Your task to perform on an android device: change timer sound Image 0: 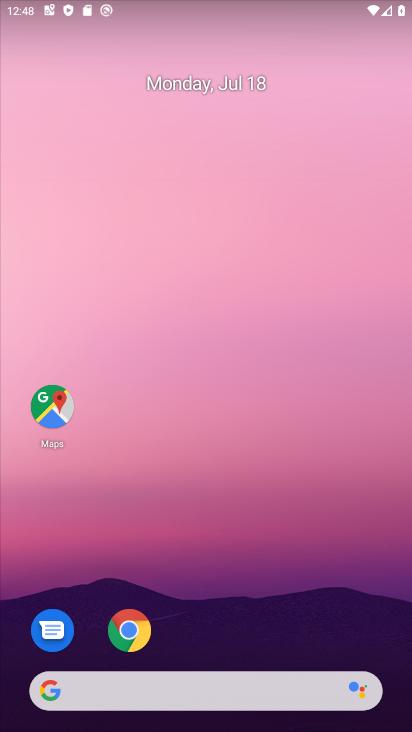
Step 0: drag from (355, 627) to (277, 79)
Your task to perform on an android device: change timer sound Image 1: 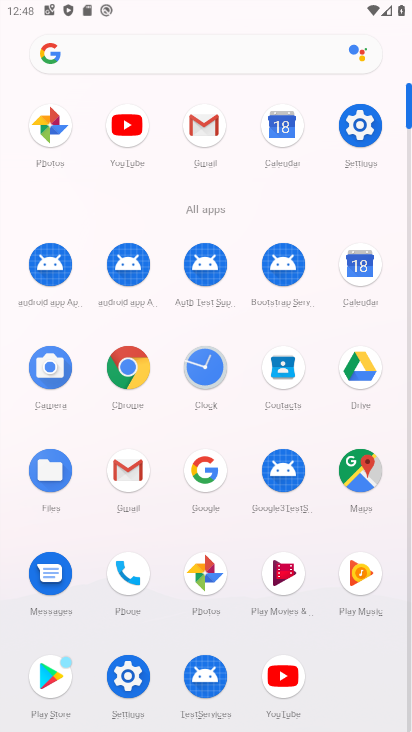
Step 1: click (209, 380)
Your task to perform on an android device: change timer sound Image 2: 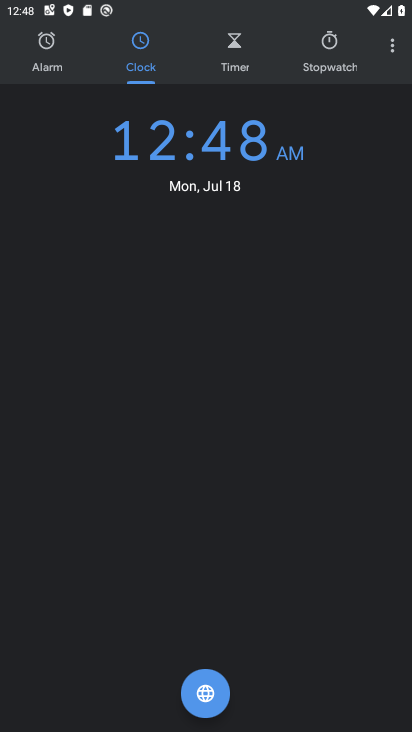
Step 2: click (392, 52)
Your task to perform on an android device: change timer sound Image 3: 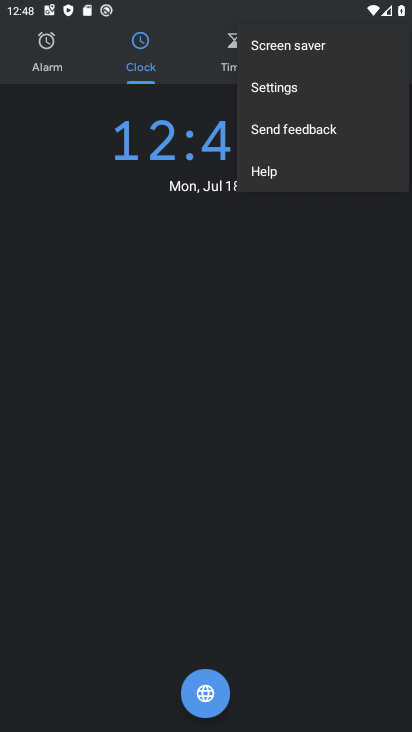
Step 3: click (337, 87)
Your task to perform on an android device: change timer sound Image 4: 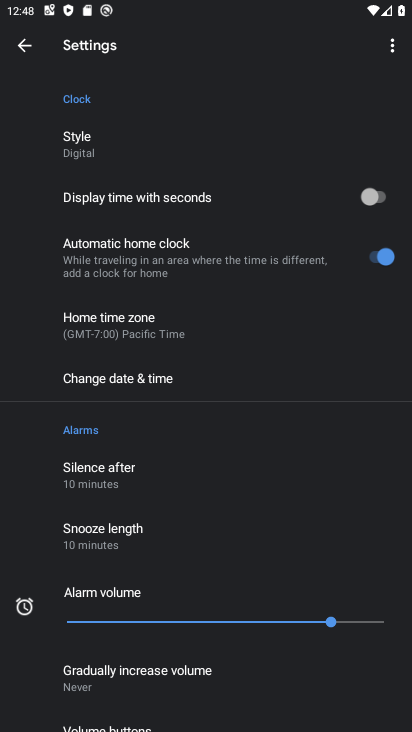
Step 4: drag from (265, 578) to (246, 209)
Your task to perform on an android device: change timer sound Image 5: 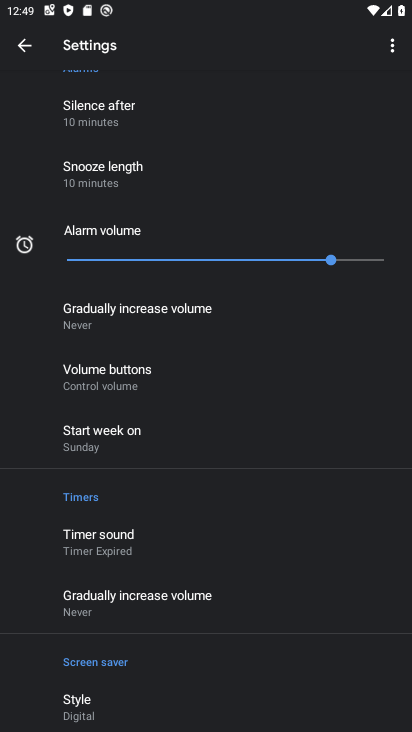
Step 5: click (226, 530)
Your task to perform on an android device: change timer sound Image 6: 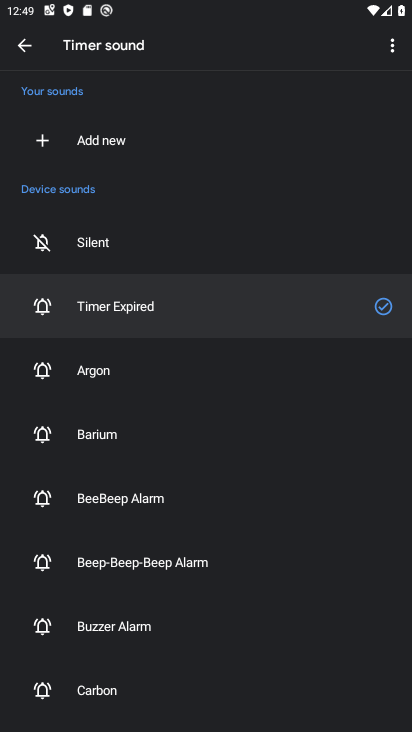
Step 6: click (157, 469)
Your task to perform on an android device: change timer sound Image 7: 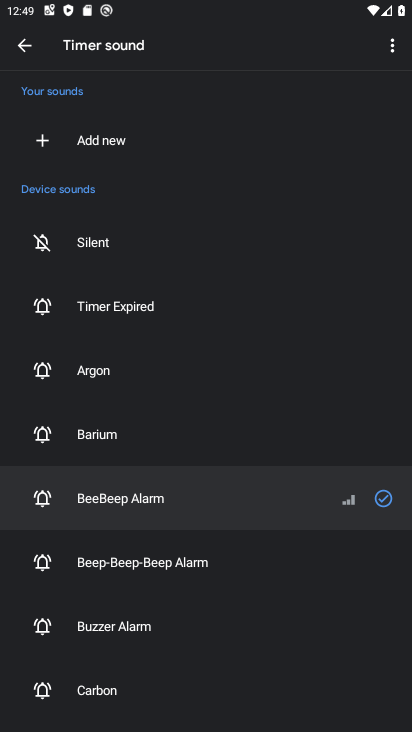
Step 7: task complete